Your task to perform on an android device: change timer sound Image 0: 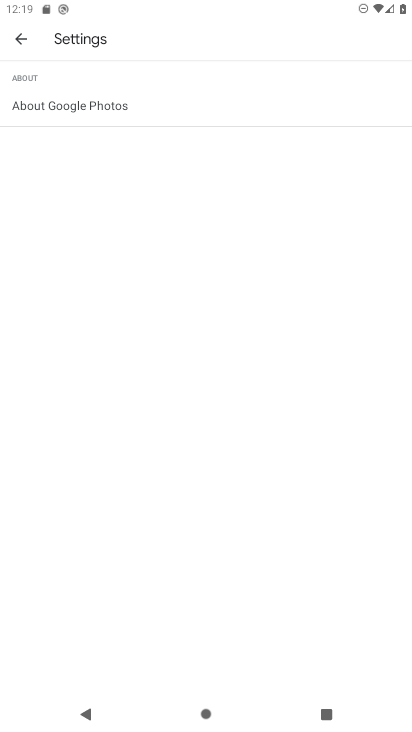
Step 0: press home button
Your task to perform on an android device: change timer sound Image 1: 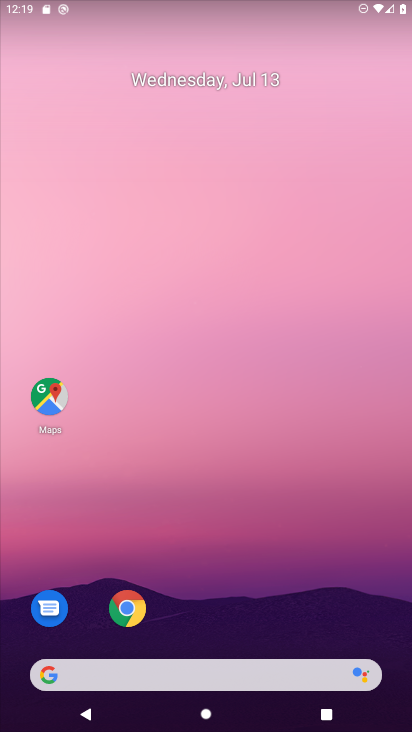
Step 1: drag from (171, 628) to (223, 18)
Your task to perform on an android device: change timer sound Image 2: 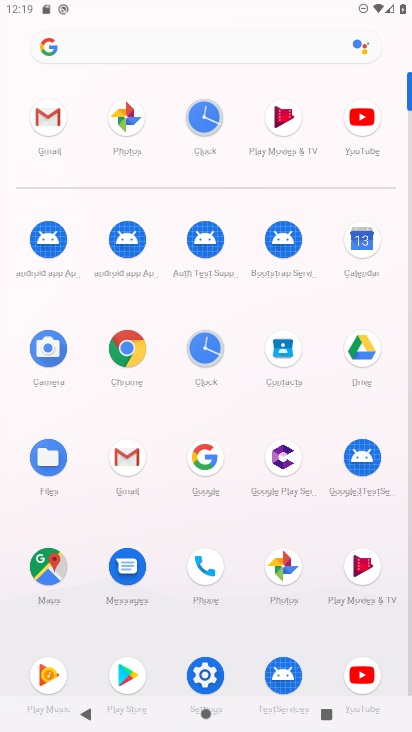
Step 2: click (206, 336)
Your task to perform on an android device: change timer sound Image 3: 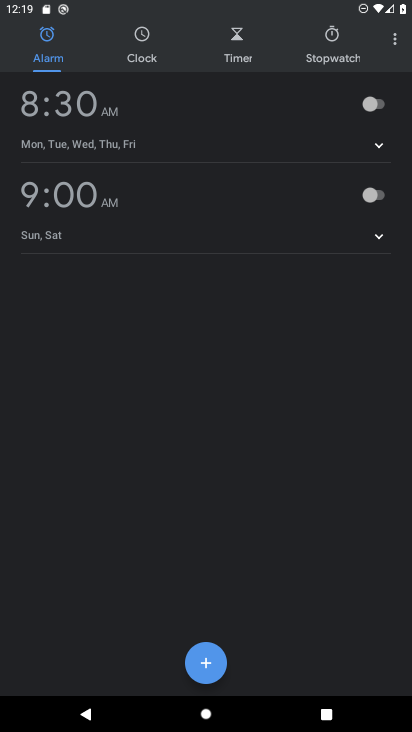
Step 3: click (406, 33)
Your task to perform on an android device: change timer sound Image 4: 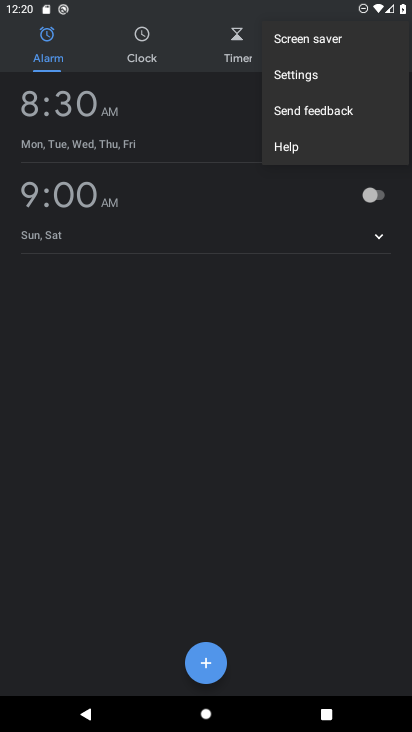
Step 4: click (313, 77)
Your task to perform on an android device: change timer sound Image 5: 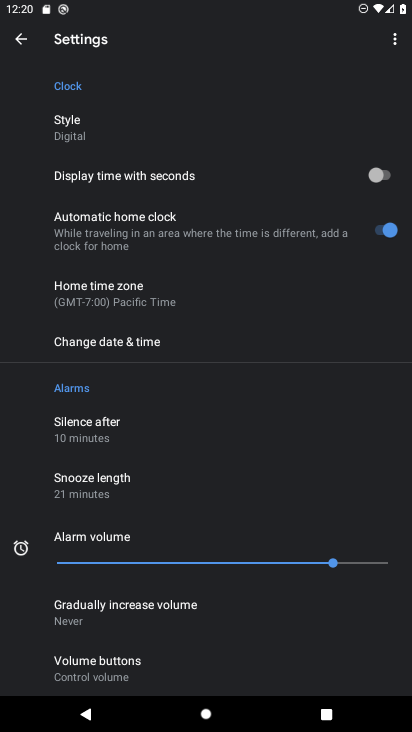
Step 5: drag from (141, 601) to (175, 157)
Your task to perform on an android device: change timer sound Image 6: 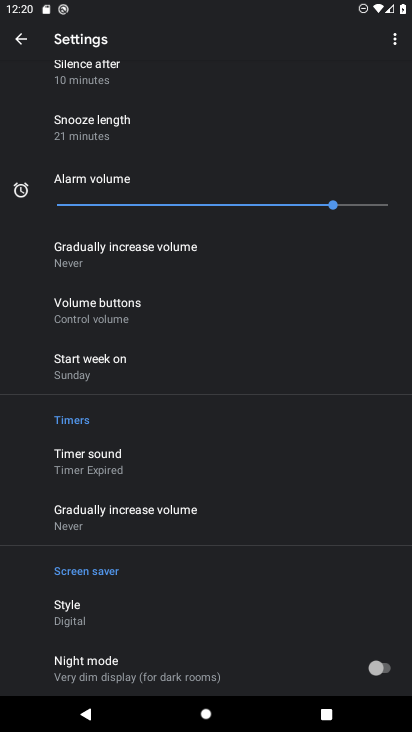
Step 6: drag from (157, 566) to (178, 306)
Your task to perform on an android device: change timer sound Image 7: 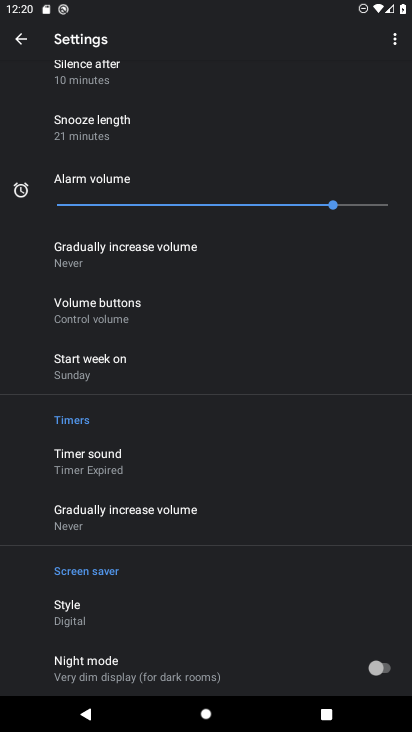
Step 7: click (141, 463)
Your task to perform on an android device: change timer sound Image 8: 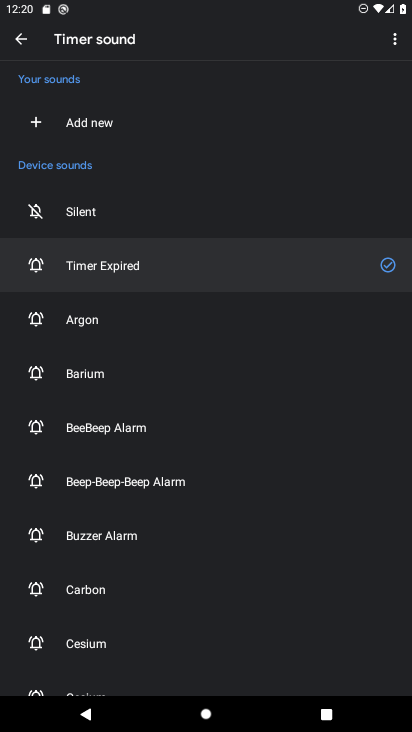
Step 8: task complete